Your task to perform on an android device: Search for a dining table on crateandbarrel.com Image 0: 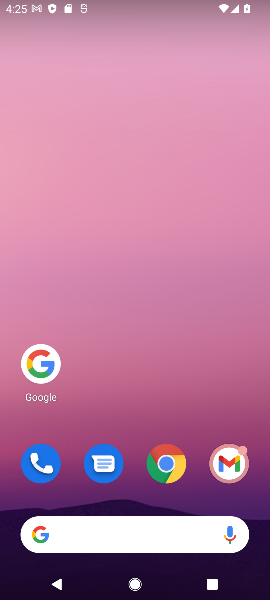
Step 0: click (50, 350)
Your task to perform on an android device: Search for a dining table on crateandbarrel.com Image 1: 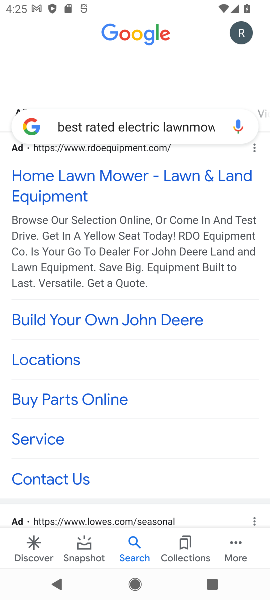
Step 1: click (174, 124)
Your task to perform on an android device: Search for a dining table on crateandbarrel.com Image 2: 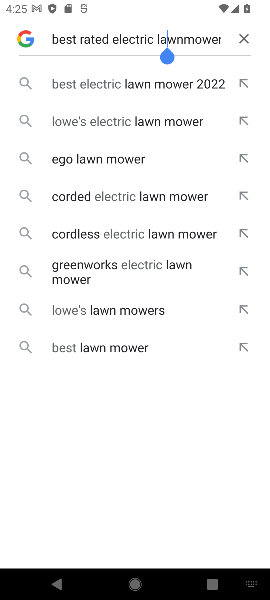
Step 2: click (247, 31)
Your task to perform on an android device: Search for a dining table on crateandbarrel.com Image 3: 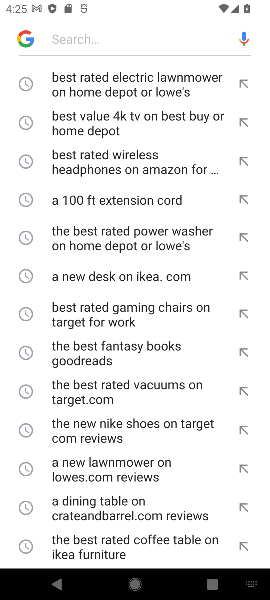
Step 3: click (107, 25)
Your task to perform on an android device: Search for a dining table on crateandbarrel.com Image 4: 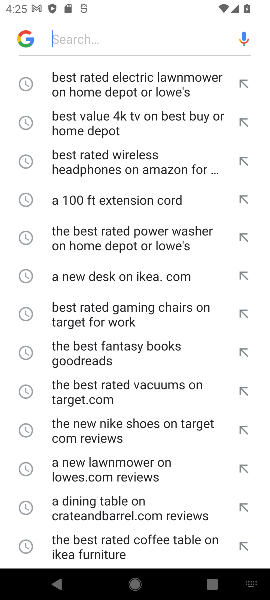
Step 4: type " dining table on crateandbarrel.com "
Your task to perform on an android device: Search for a dining table on crateandbarrel.com Image 5: 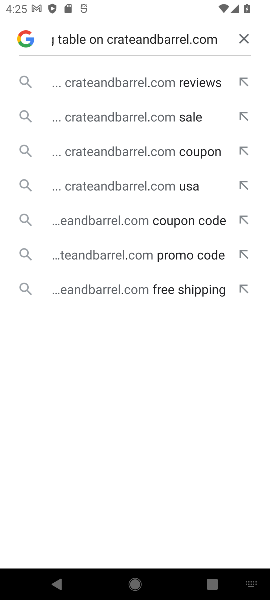
Step 5: click (130, 183)
Your task to perform on an android device: Search for a dining table on crateandbarrel.com Image 6: 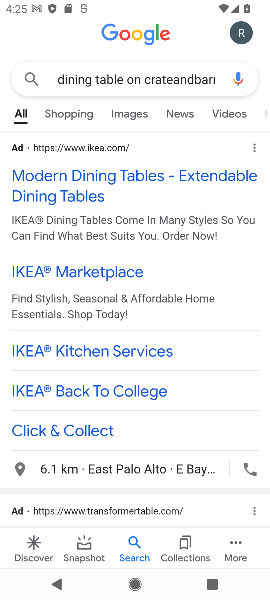
Step 6: drag from (117, 527) to (139, 275)
Your task to perform on an android device: Search for a dining table on crateandbarrel.com Image 7: 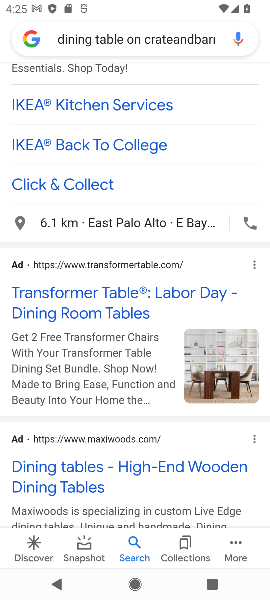
Step 7: drag from (112, 136) to (160, 429)
Your task to perform on an android device: Search for a dining table on crateandbarrel.com Image 8: 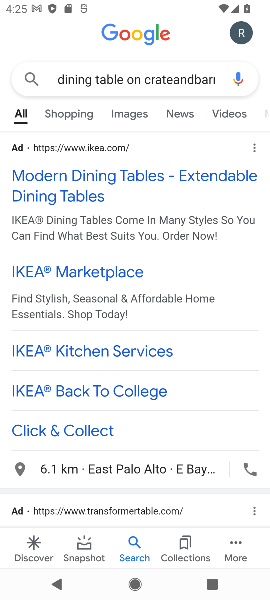
Step 8: drag from (119, 438) to (139, 157)
Your task to perform on an android device: Search for a dining table on crateandbarrel.com Image 9: 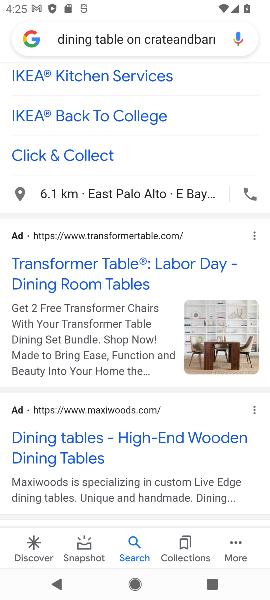
Step 9: drag from (135, 417) to (167, 166)
Your task to perform on an android device: Search for a dining table on crateandbarrel.com Image 10: 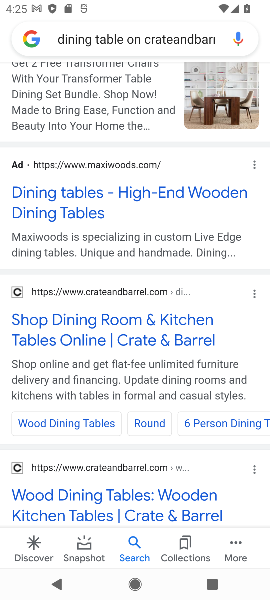
Step 10: drag from (154, 473) to (156, 280)
Your task to perform on an android device: Search for a dining table on crateandbarrel.com Image 11: 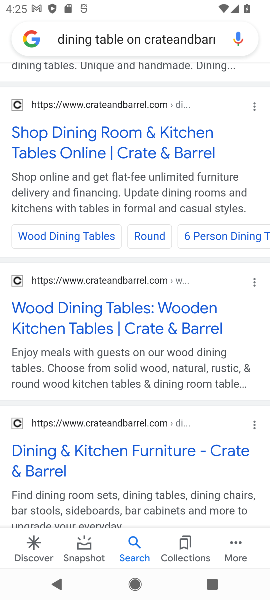
Step 11: click (137, 314)
Your task to perform on an android device: Search for a dining table on crateandbarrel.com Image 12: 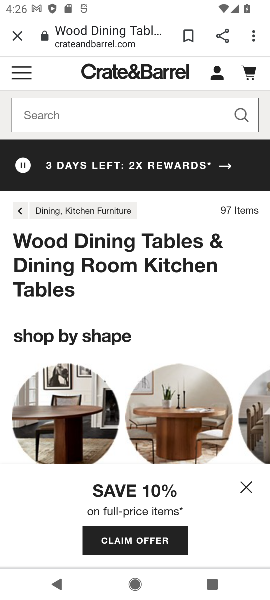
Step 12: click (123, 353)
Your task to perform on an android device: Search for a dining table on crateandbarrel.com Image 13: 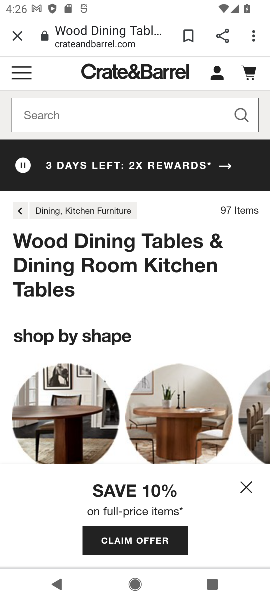
Step 13: click (123, 353)
Your task to perform on an android device: Search for a dining table on crateandbarrel.com Image 14: 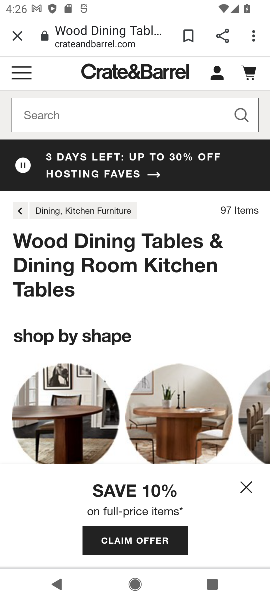
Step 14: click (123, 353)
Your task to perform on an android device: Search for a dining table on crateandbarrel.com Image 15: 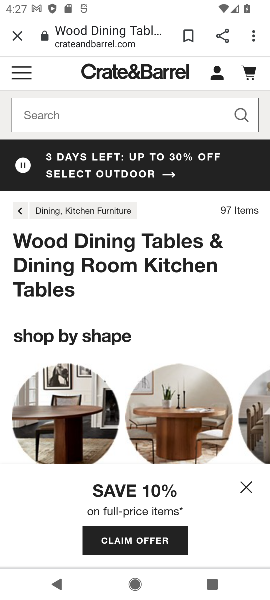
Step 15: task complete